Your task to perform on an android device: Check the weather Image 0: 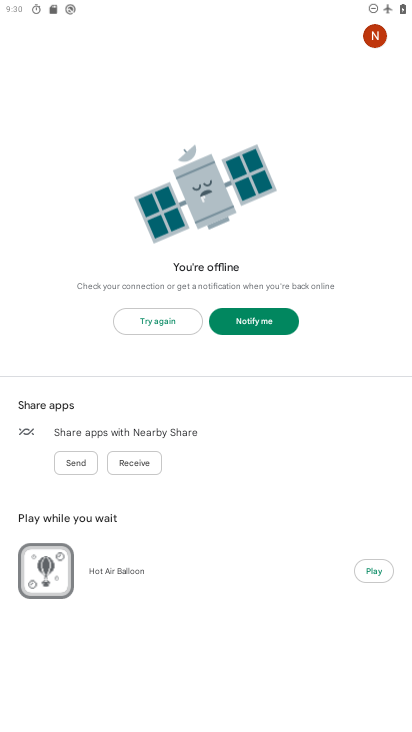
Step 0: press home button
Your task to perform on an android device: Check the weather Image 1: 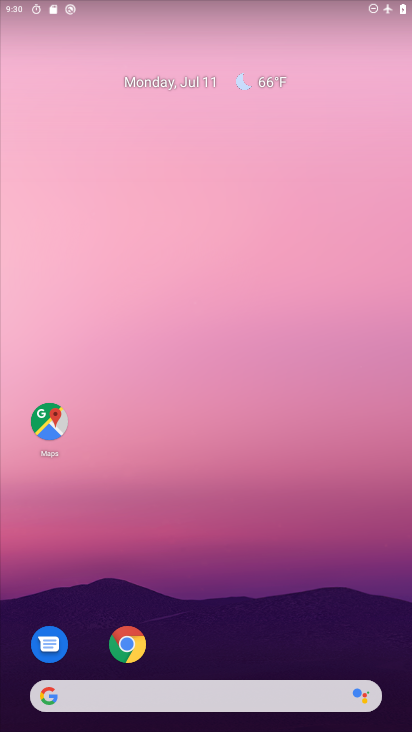
Step 1: click (126, 646)
Your task to perform on an android device: Check the weather Image 2: 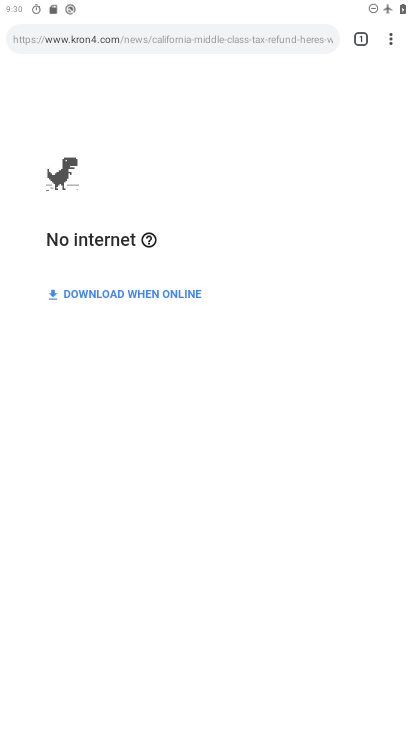
Step 2: click (321, 42)
Your task to perform on an android device: Check the weather Image 3: 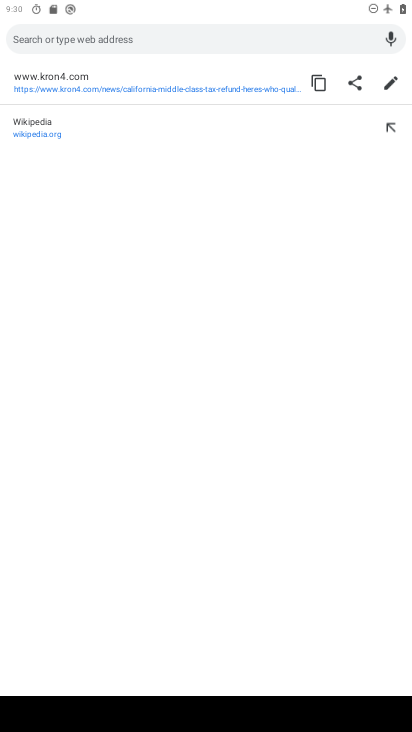
Step 3: type "weather"
Your task to perform on an android device: Check the weather Image 4: 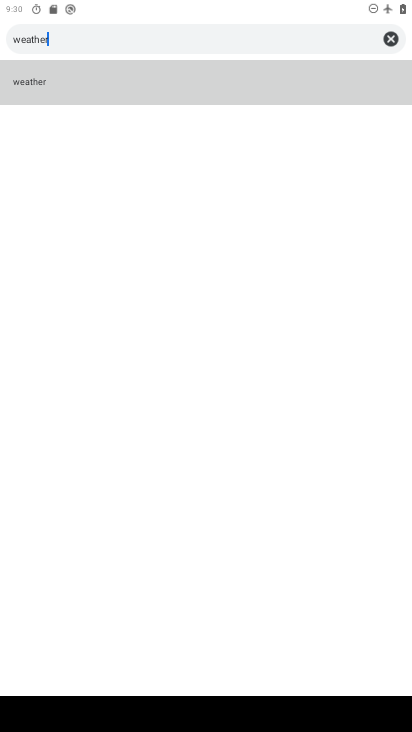
Step 4: click (38, 85)
Your task to perform on an android device: Check the weather Image 5: 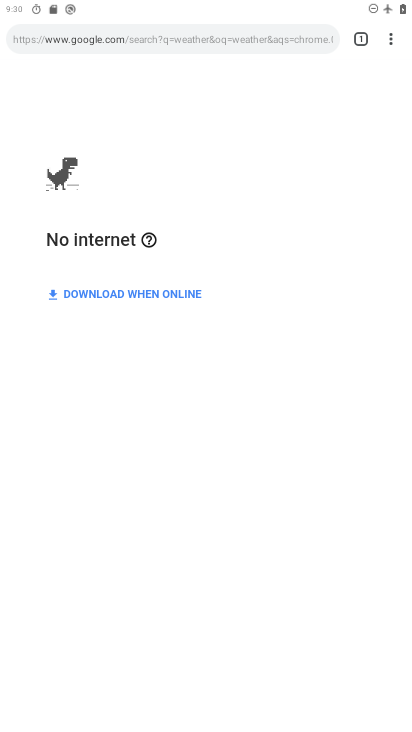
Step 5: task complete